Your task to perform on an android device: open a new tab in the chrome app Image 0: 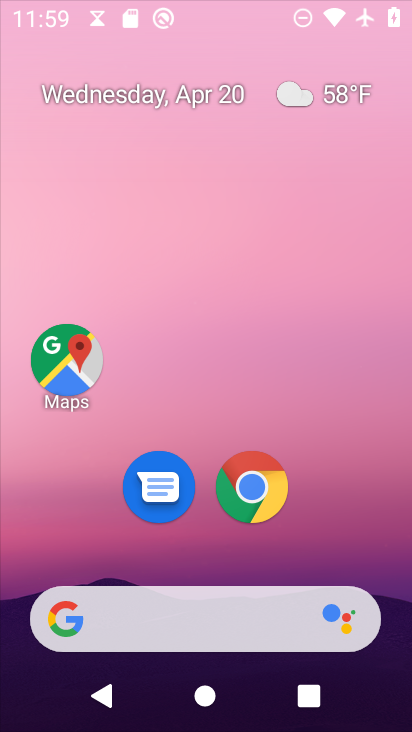
Step 0: click (244, 6)
Your task to perform on an android device: open a new tab in the chrome app Image 1: 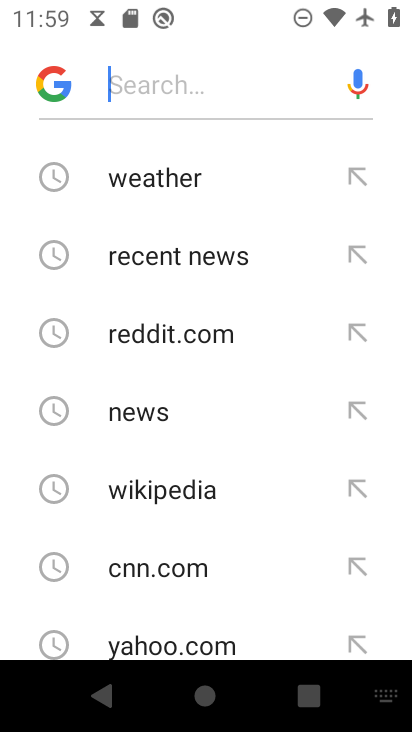
Step 1: press back button
Your task to perform on an android device: open a new tab in the chrome app Image 2: 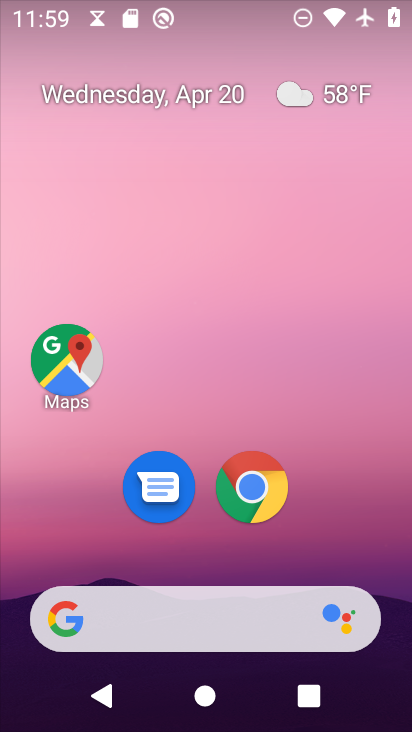
Step 2: drag from (347, 515) to (276, 22)
Your task to perform on an android device: open a new tab in the chrome app Image 3: 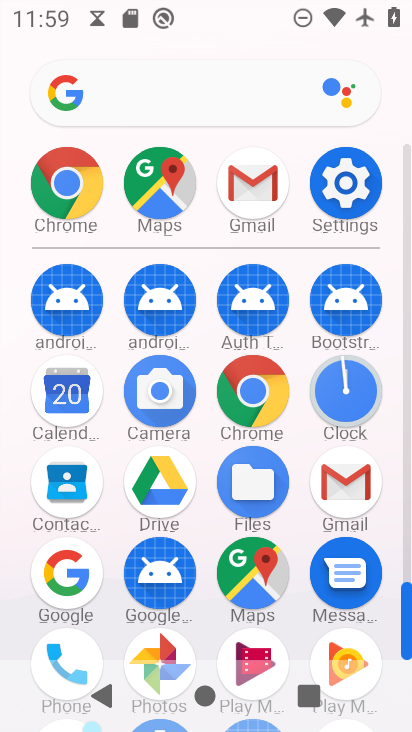
Step 3: click (252, 389)
Your task to perform on an android device: open a new tab in the chrome app Image 4: 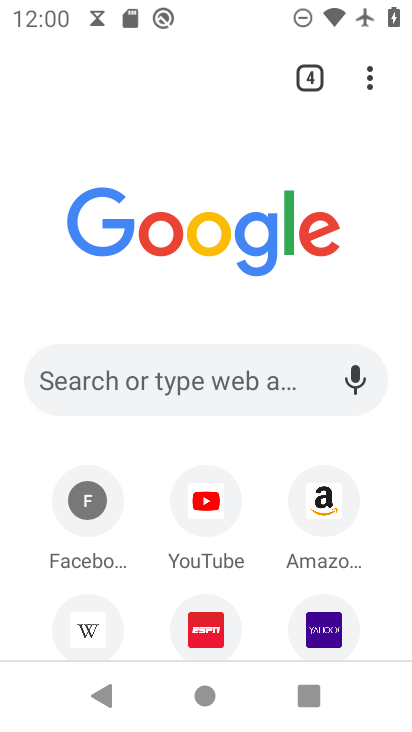
Step 4: task complete